Your task to perform on an android device: toggle translation in the chrome app Image 0: 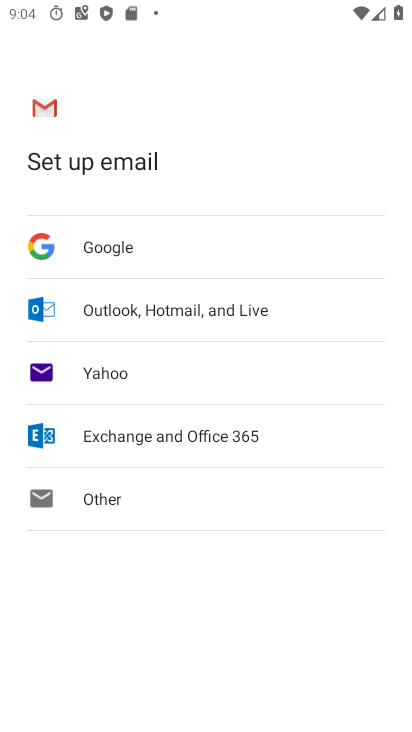
Step 0: press back button
Your task to perform on an android device: toggle translation in the chrome app Image 1: 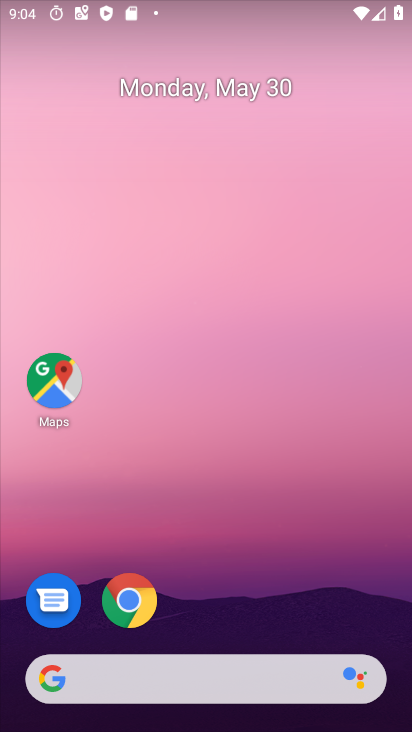
Step 1: drag from (310, 584) to (265, 45)
Your task to perform on an android device: toggle translation in the chrome app Image 2: 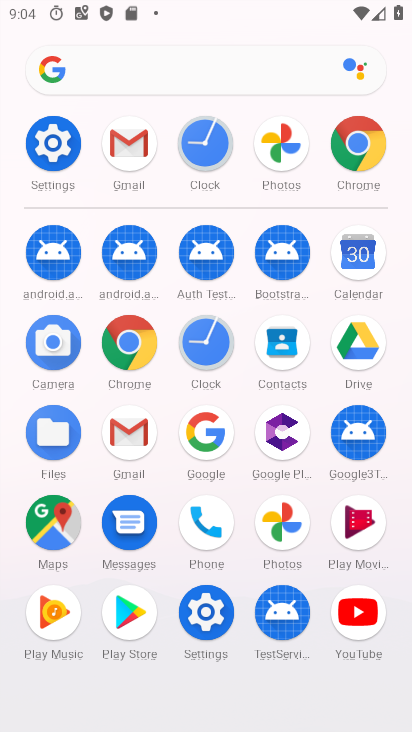
Step 2: drag from (2, 367) to (3, 315)
Your task to perform on an android device: toggle translation in the chrome app Image 3: 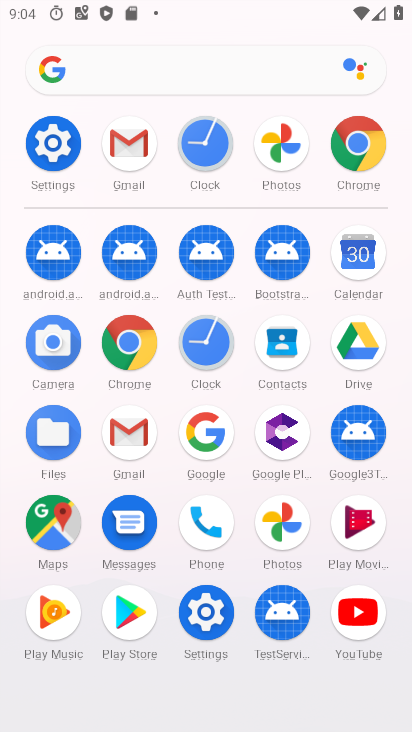
Step 3: click (124, 342)
Your task to perform on an android device: toggle translation in the chrome app Image 4: 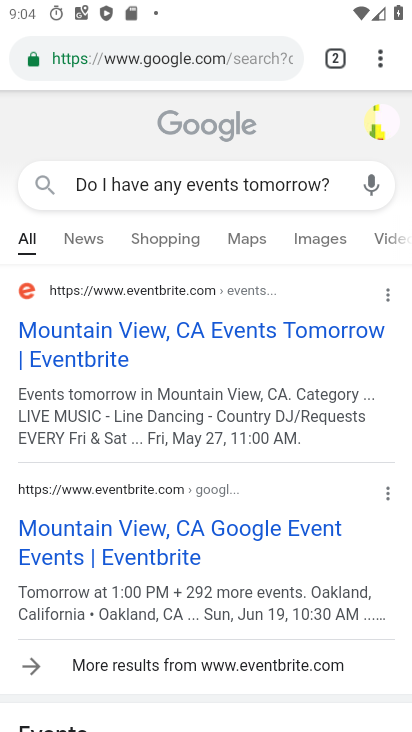
Step 4: drag from (381, 49) to (174, 624)
Your task to perform on an android device: toggle translation in the chrome app Image 5: 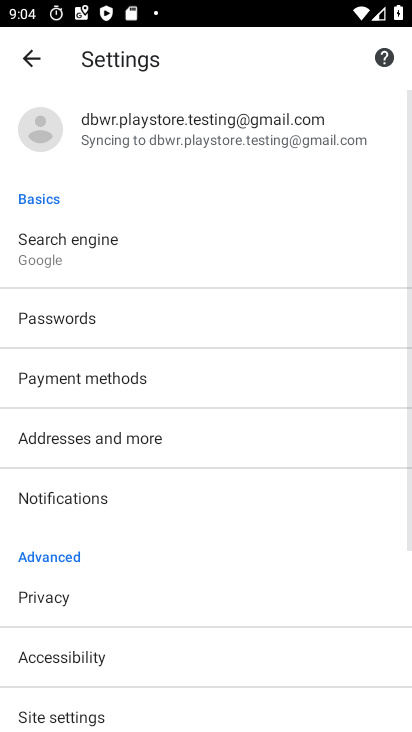
Step 5: drag from (257, 542) to (257, 129)
Your task to perform on an android device: toggle translation in the chrome app Image 6: 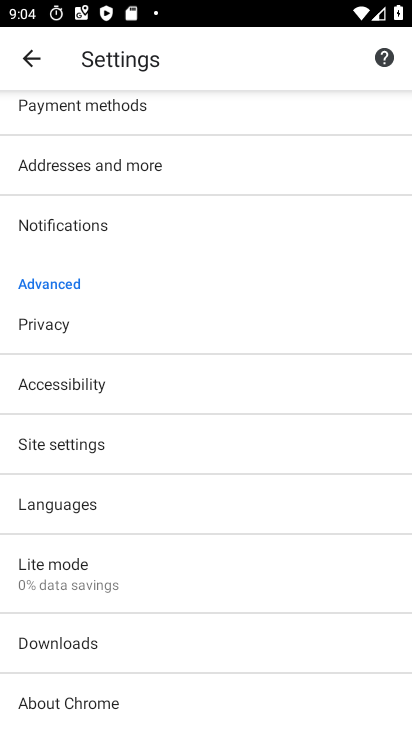
Step 6: click (132, 511)
Your task to perform on an android device: toggle translation in the chrome app Image 7: 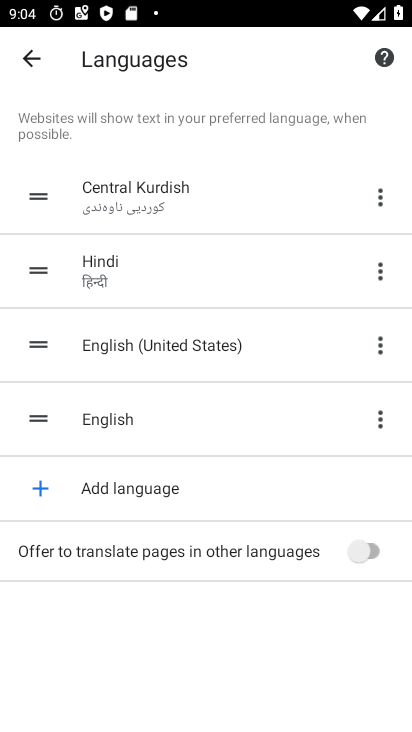
Step 7: click (365, 548)
Your task to perform on an android device: toggle translation in the chrome app Image 8: 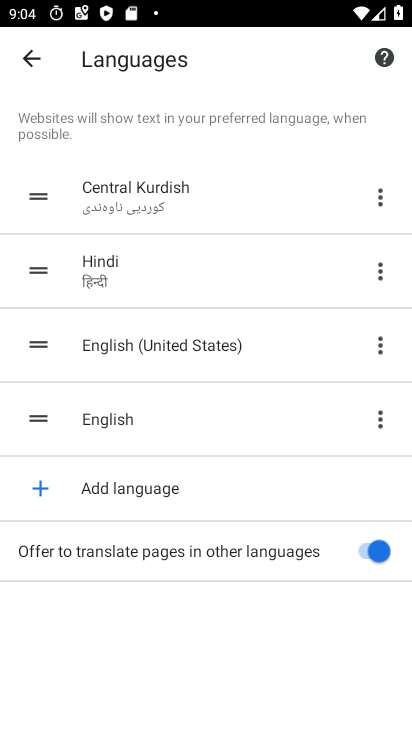
Step 8: task complete